Your task to perform on an android device: change your default location settings in chrome Image 0: 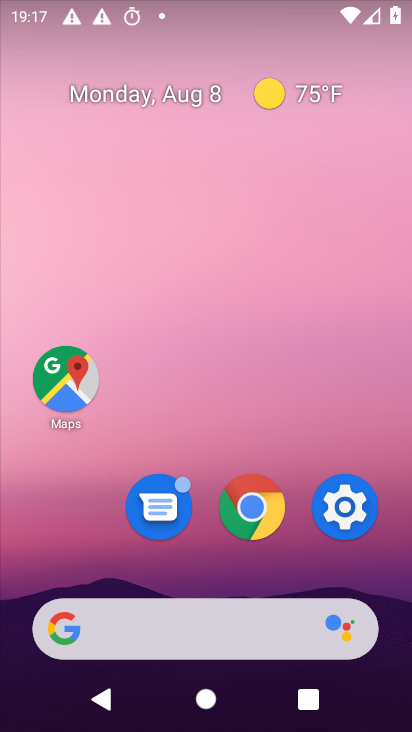
Step 0: drag from (261, 660) to (195, 126)
Your task to perform on an android device: change your default location settings in chrome Image 1: 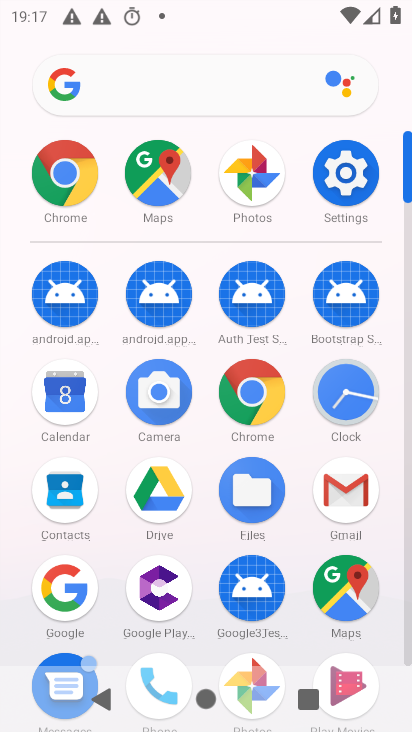
Step 1: click (68, 178)
Your task to perform on an android device: change your default location settings in chrome Image 2: 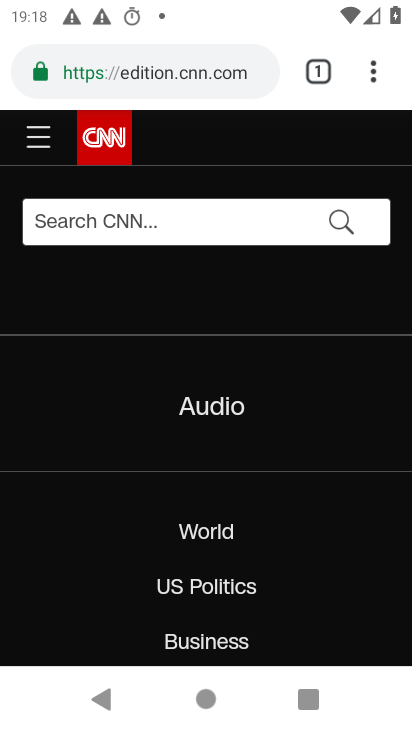
Step 2: click (370, 77)
Your task to perform on an android device: change your default location settings in chrome Image 3: 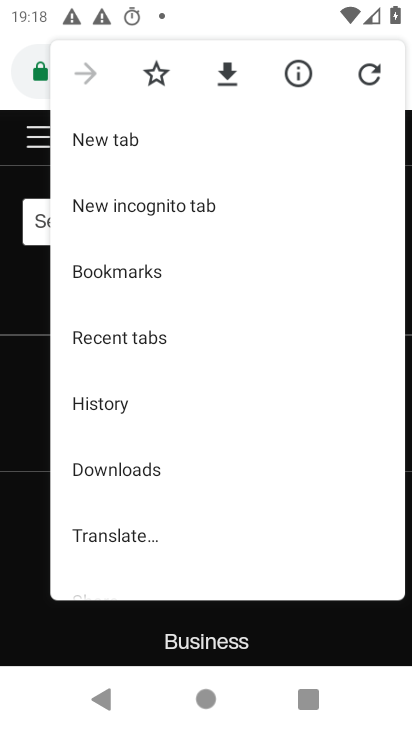
Step 3: drag from (146, 508) to (207, 203)
Your task to perform on an android device: change your default location settings in chrome Image 4: 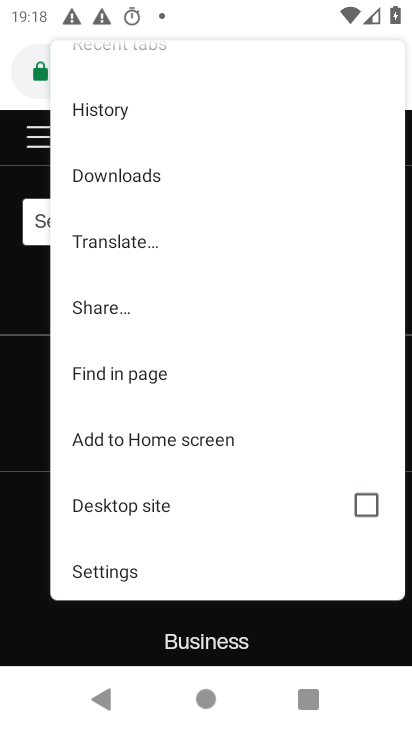
Step 4: drag from (176, 506) to (189, 427)
Your task to perform on an android device: change your default location settings in chrome Image 5: 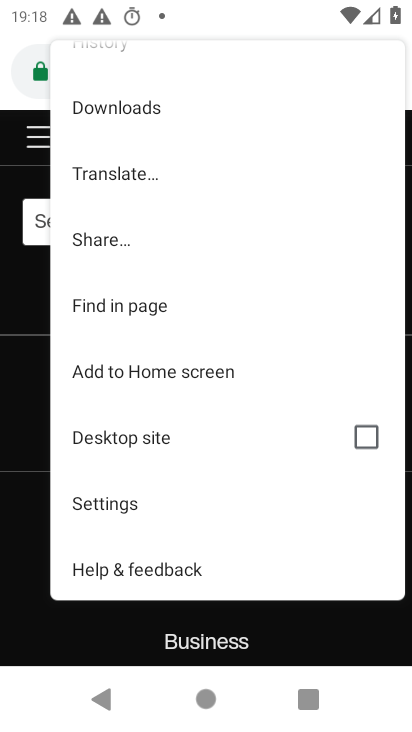
Step 5: click (112, 515)
Your task to perform on an android device: change your default location settings in chrome Image 6: 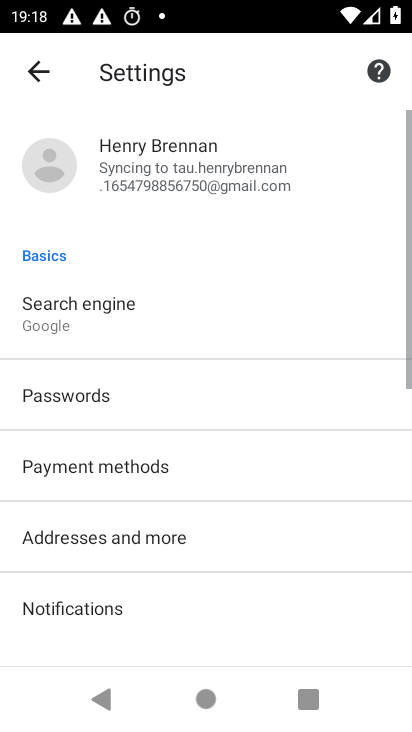
Step 6: drag from (159, 545) to (197, 224)
Your task to perform on an android device: change your default location settings in chrome Image 7: 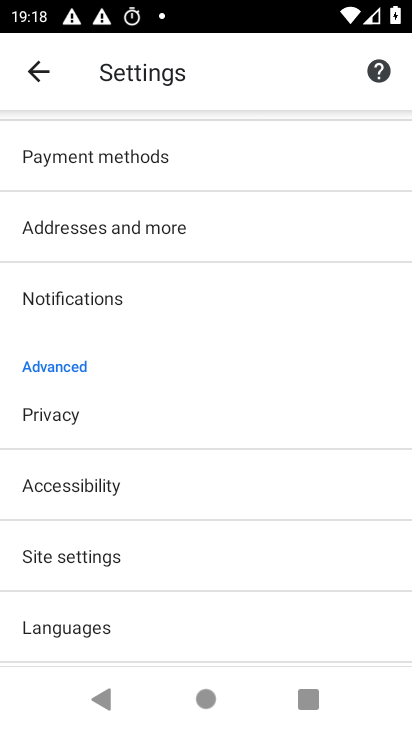
Step 7: click (143, 555)
Your task to perform on an android device: change your default location settings in chrome Image 8: 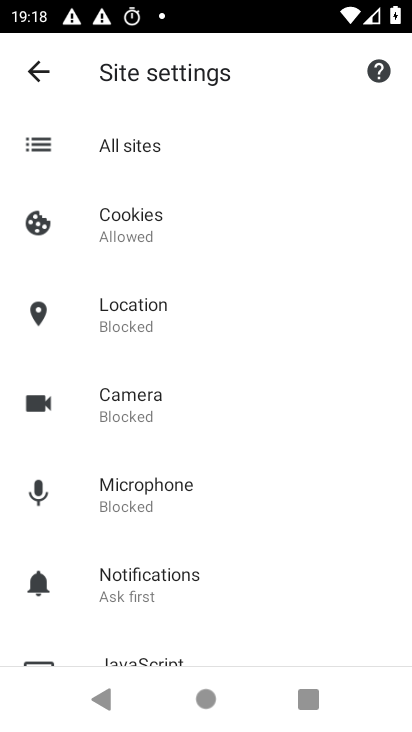
Step 8: click (150, 324)
Your task to perform on an android device: change your default location settings in chrome Image 9: 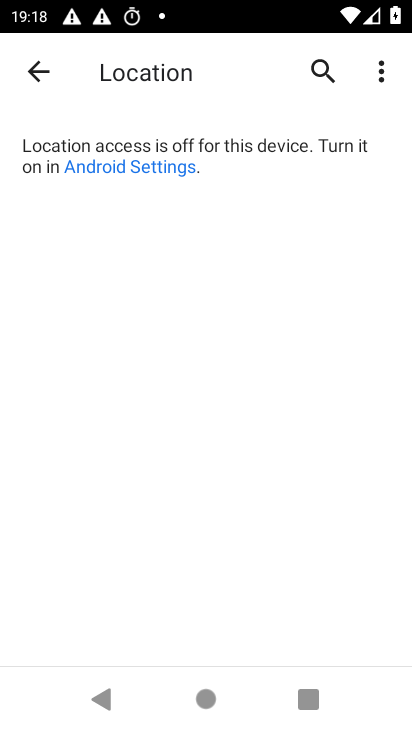
Step 9: task complete